Your task to perform on an android device: turn off notifications in google photos Image 0: 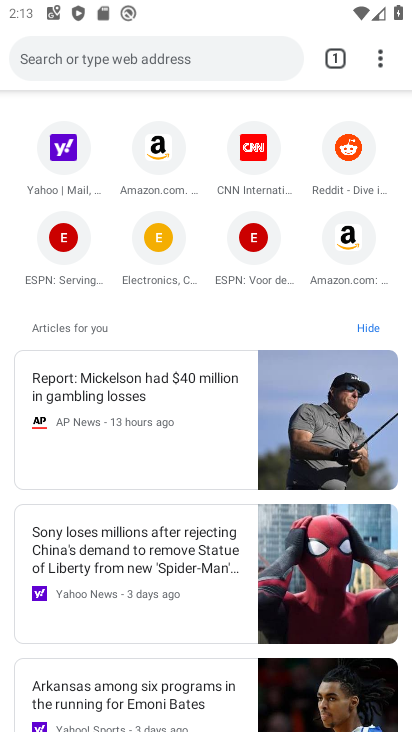
Step 0: press home button
Your task to perform on an android device: turn off notifications in google photos Image 1: 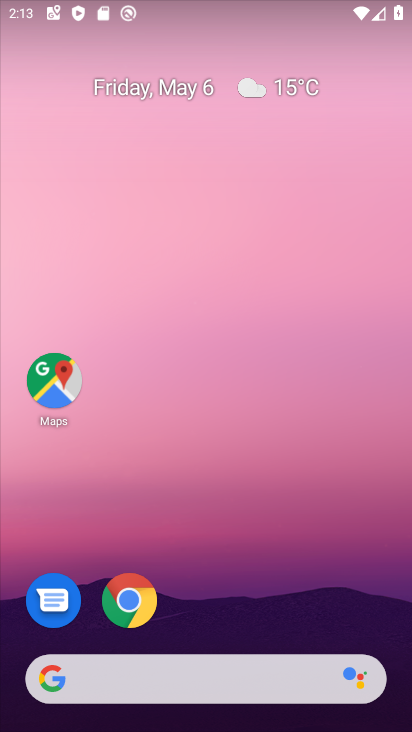
Step 1: drag from (319, 631) to (271, 73)
Your task to perform on an android device: turn off notifications in google photos Image 2: 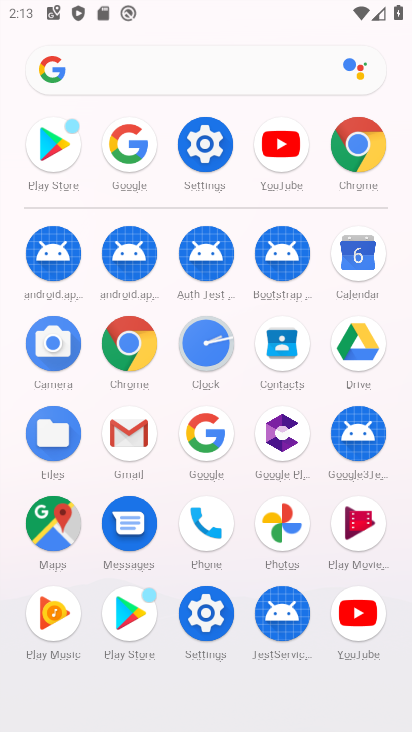
Step 2: click (288, 543)
Your task to perform on an android device: turn off notifications in google photos Image 3: 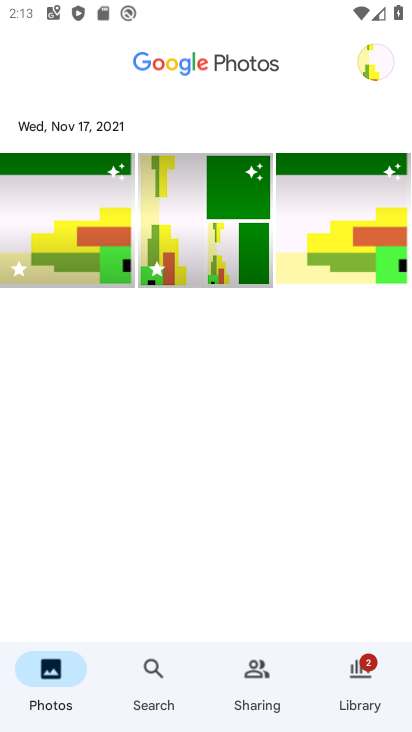
Step 3: click (389, 69)
Your task to perform on an android device: turn off notifications in google photos Image 4: 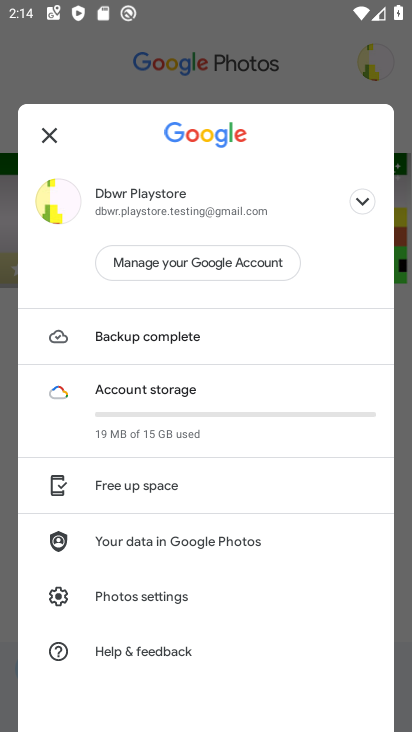
Step 4: click (118, 594)
Your task to perform on an android device: turn off notifications in google photos Image 5: 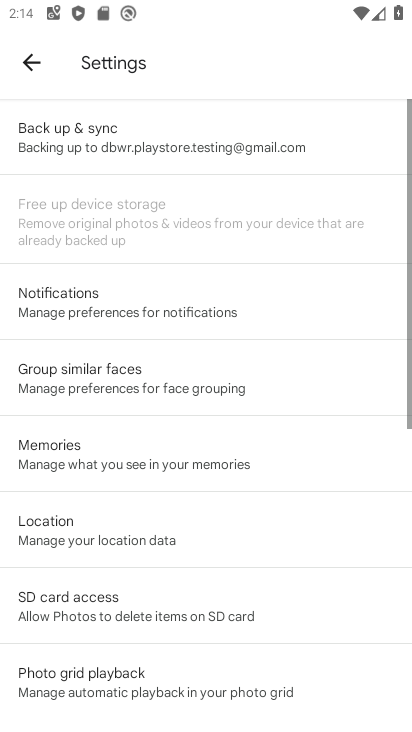
Step 5: click (71, 316)
Your task to perform on an android device: turn off notifications in google photos Image 6: 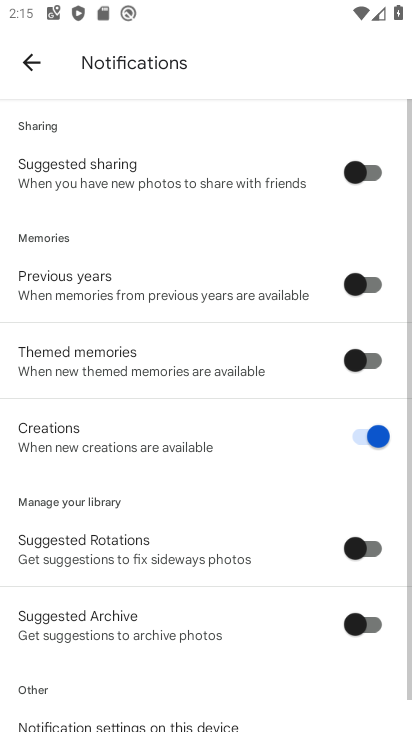
Step 6: task complete